Your task to perform on an android device: change the clock display to show seconds Image 0: 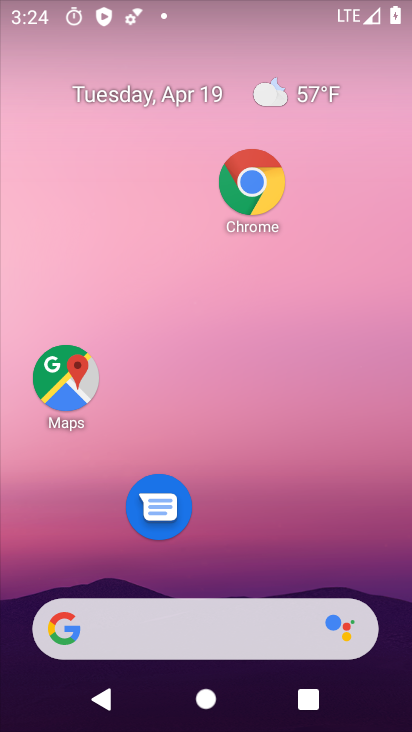
Step 0: drag from (344, 305) to (381, 0)
Your task to perform on an android device: change the clock display to show seconds Image 1: 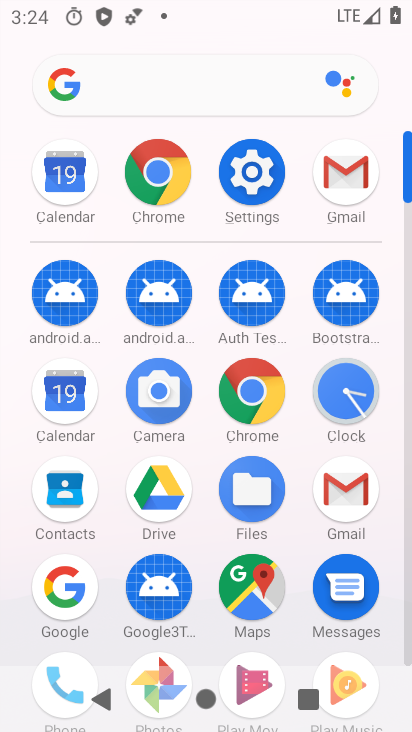
Step 1: click (359, 396)
Your task to perform on an android device: change the clock display to show seconds Image 2: 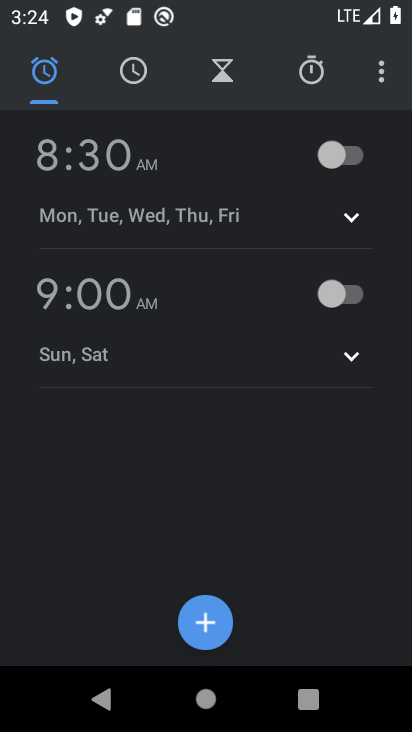
Step 2: click (385, 83)
Your task to perform on an android device: change the clock display to show seconds Image 3: 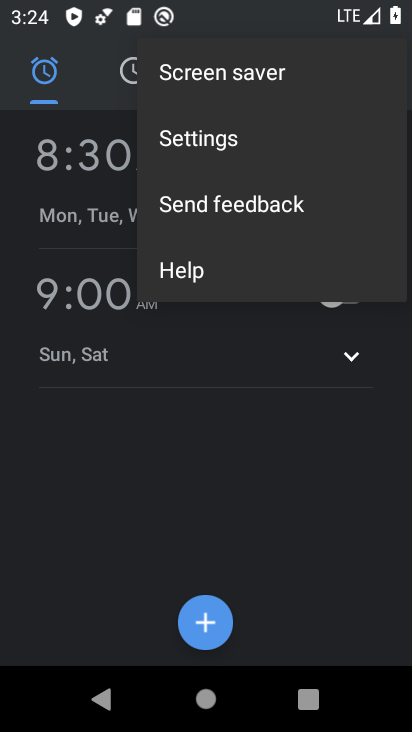
Step 3: click (257, 139)
Your task to perform on an android device: change the clock display to show seconds Image 4: 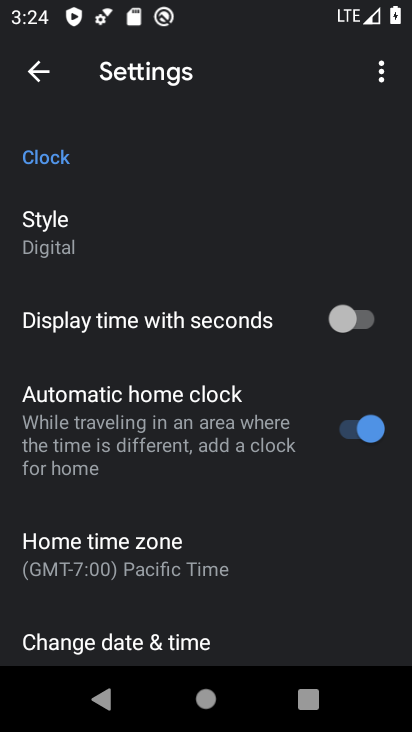
Step 4: click (289, 336)
Your task to perform on an android device: change the clock display to show seconds Image 5: 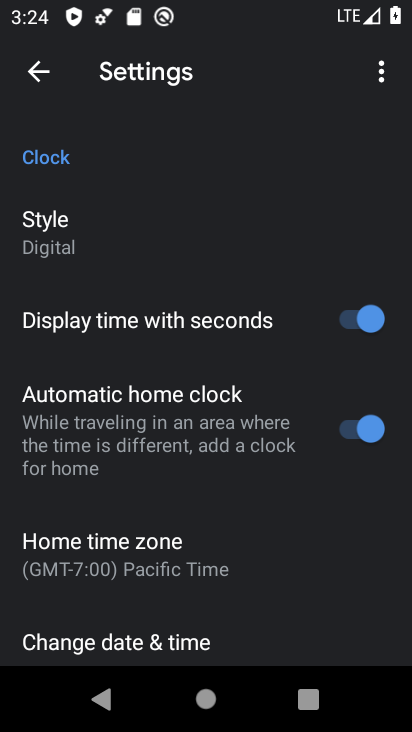
Step 5: task complete